Your task to perform on an android device: Turn on the flashlight Image 0: 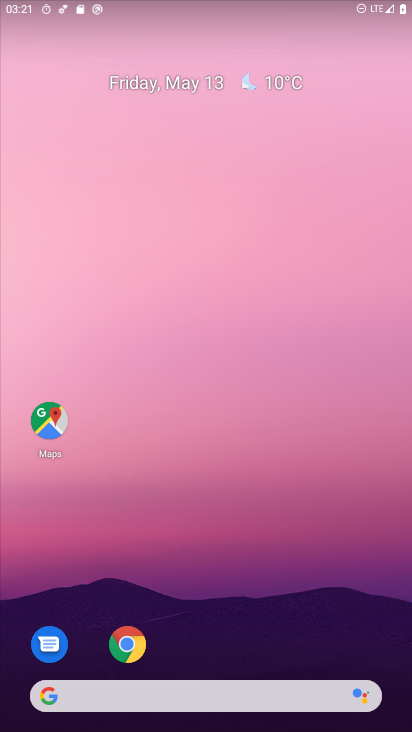
Step 0: drag from (307, 651) to (307, 1)
Your task to perform on an android device: Turn on the flashlight Image 1: 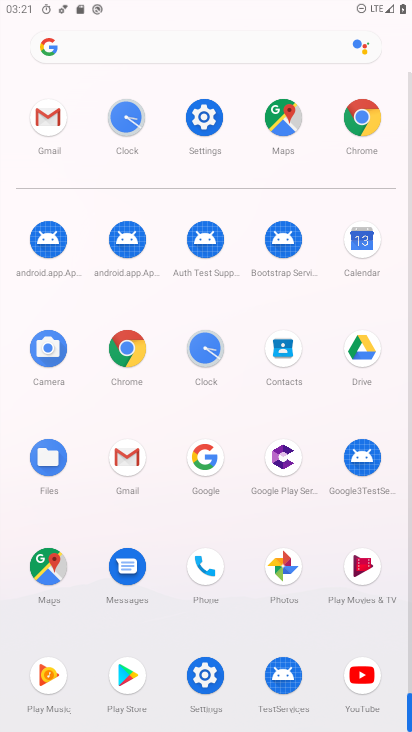
Step 1: task complete